Your task to perform on an android device: Open display settings Image 0: 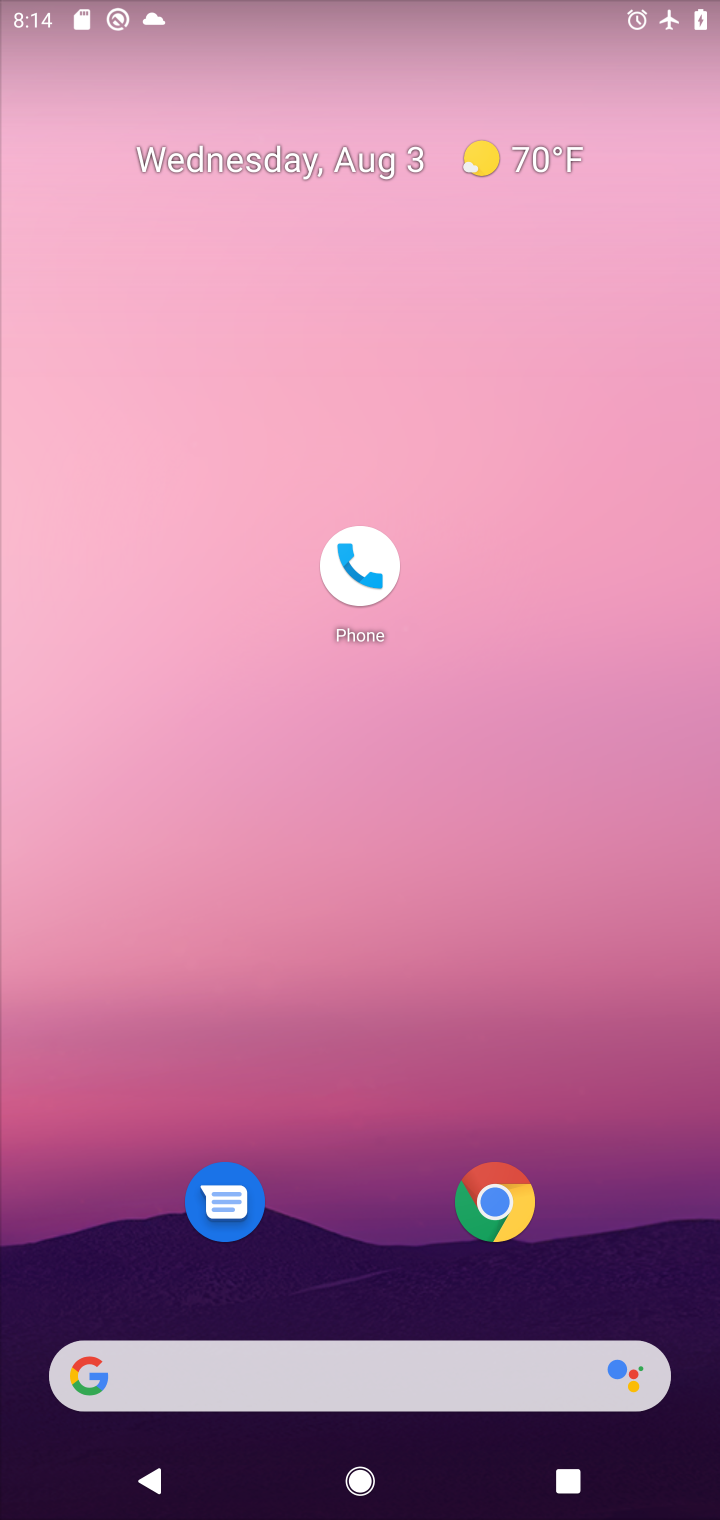
Step 0: drag from (303, 1357) to (275, 150)
Your task to perform on an android device: Open display settings Image 1: 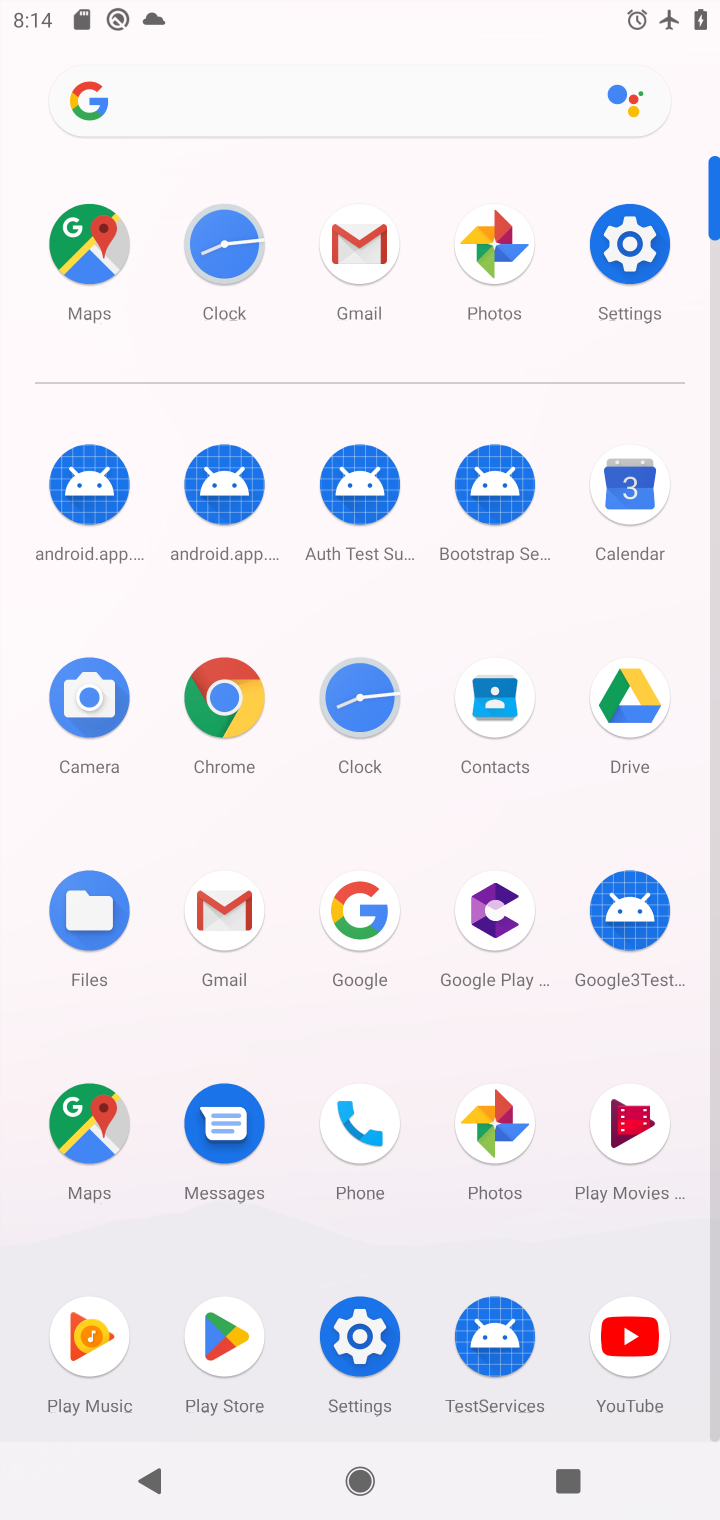
Step 1: click (357, 1331)
Your task to perform on an android device: Open display settings Image 2: 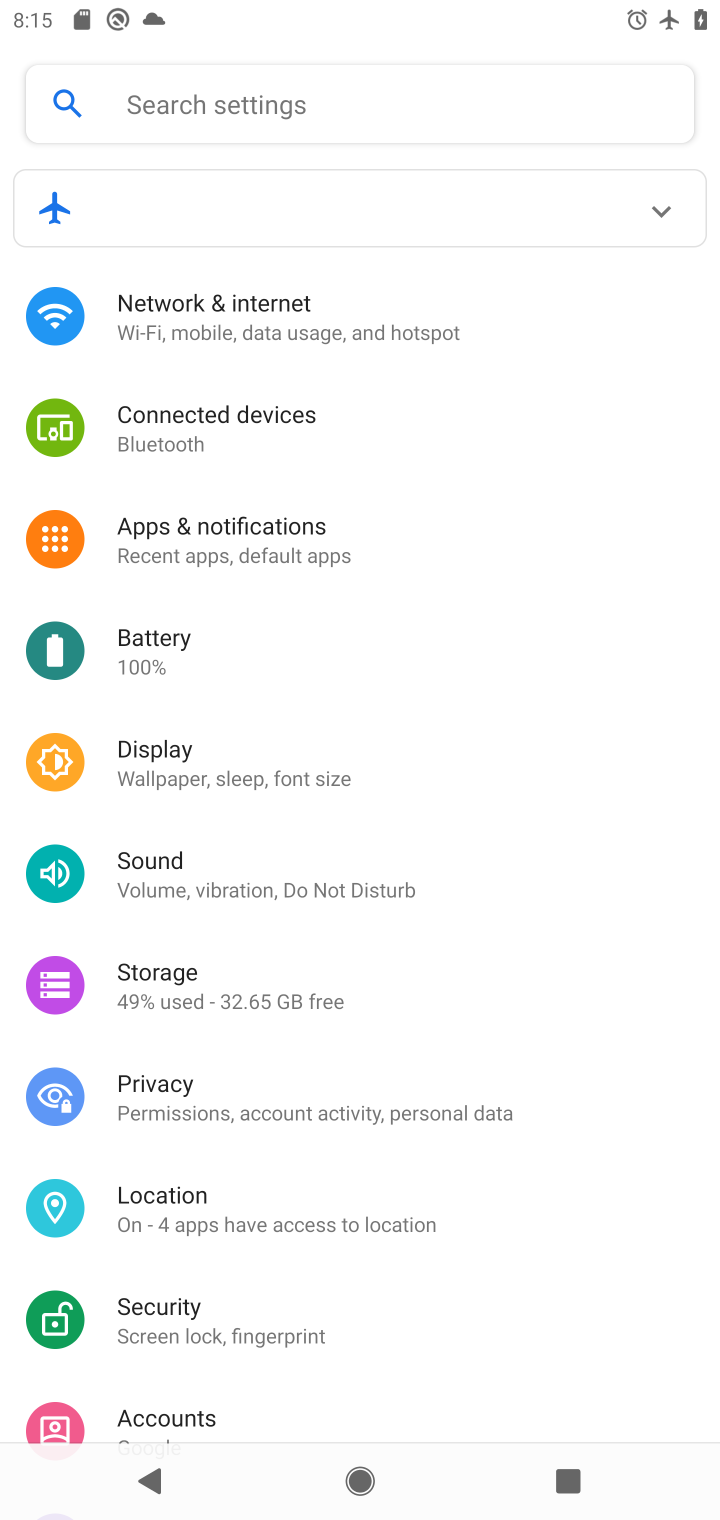
Step 2: click (160, 757)
Your task to perform on an android device: Open display settings Image 3: 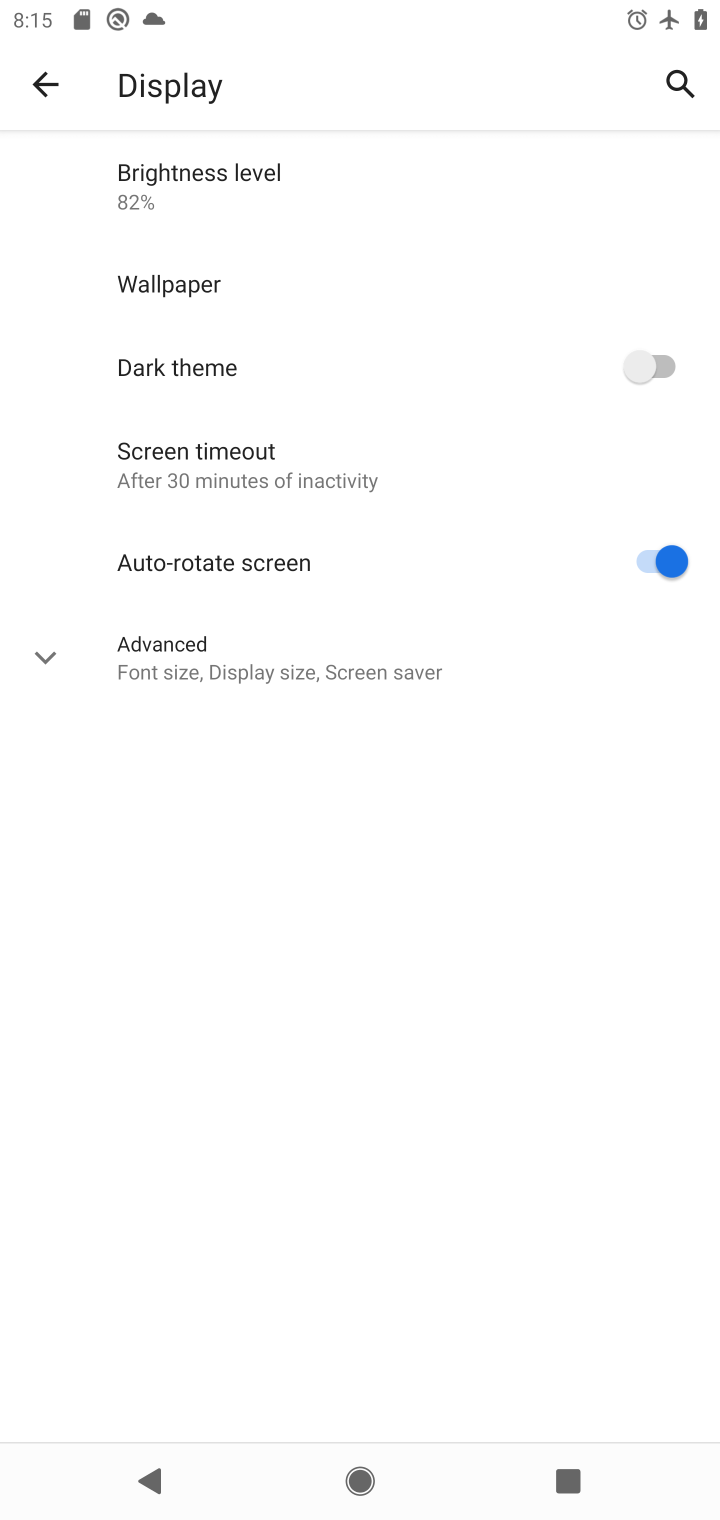
Step 3: task complete